Your task to perform on an android device: toggle priority inbox in the gmail app Image 0: 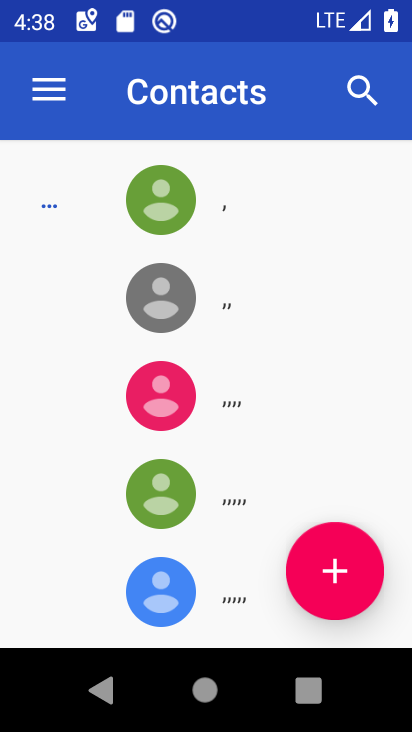
Step 0: press home button
Your task to perform on an android device: toggle priority inbox in the gmail app Image 1: 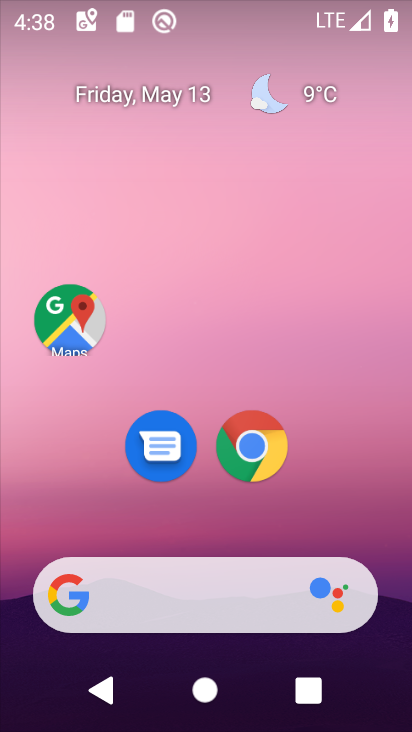
Step 1: drag from (214, 518) to (157, 10)
Your task to perform on an android device: toggle priority inbox in the gmail app Image 2: 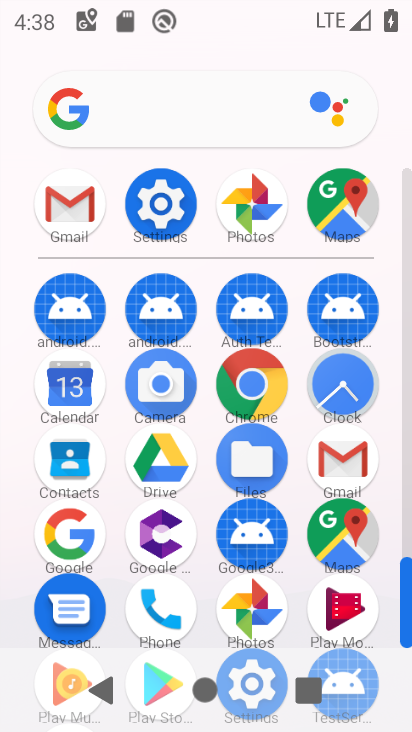
Step 2: click (340, 466)
Your task to perform on an android device: toggle priority inbox in the gmail app Image 3: 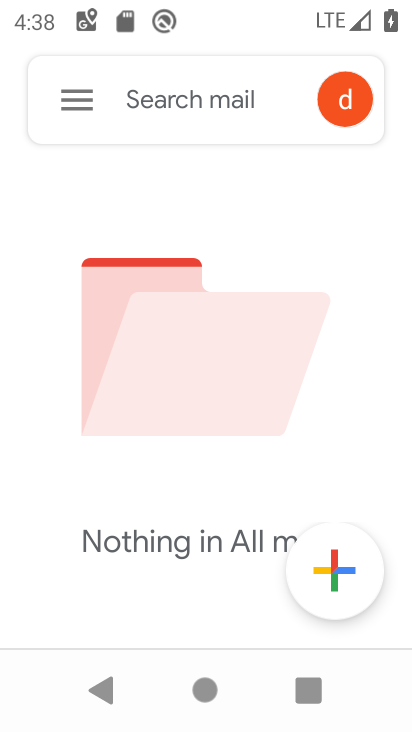
Step 3: click (69, 94)
Your task to perform on an android device: toggle priority inbox in the gmail app Image 4: 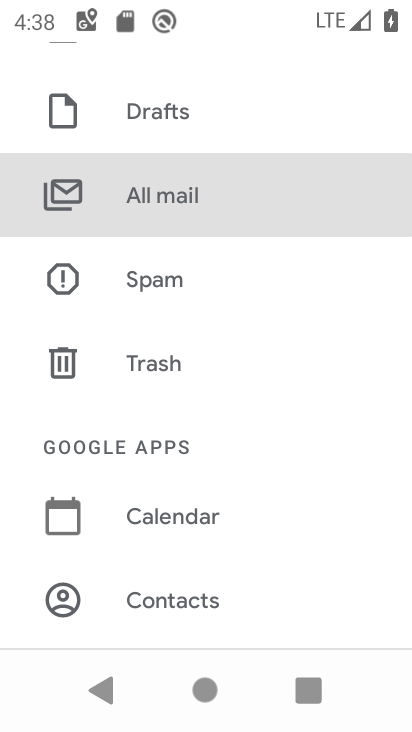
Step 4: drag from (149, 592) to (144, 223)
Your task to perform on an android device: toggle priority inbox in the gmail app Image 5: 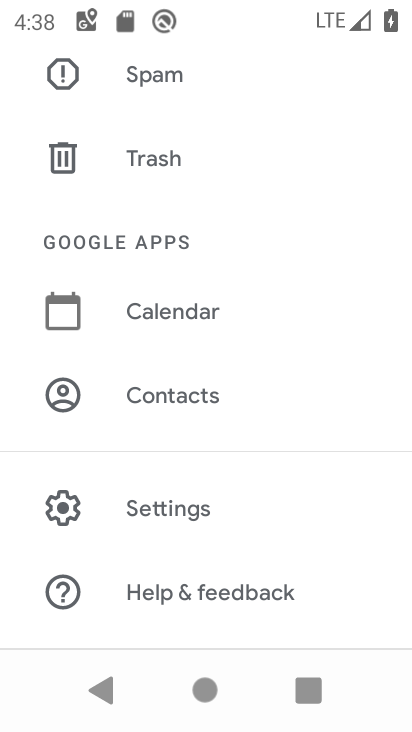
Step 5: click (147, 503)
Your task to perform on an android device: toggle priority inbox in the gmail app Image 6: 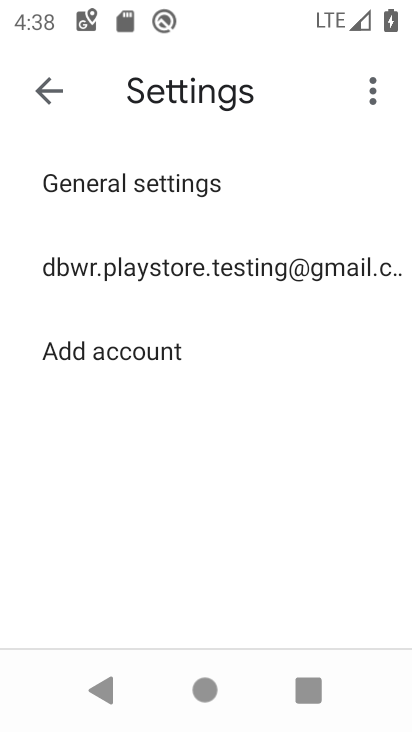
Step 6: click (118, 261)
Your task to perform on an android device: toggle priority inbox in the gmail app Image 7: 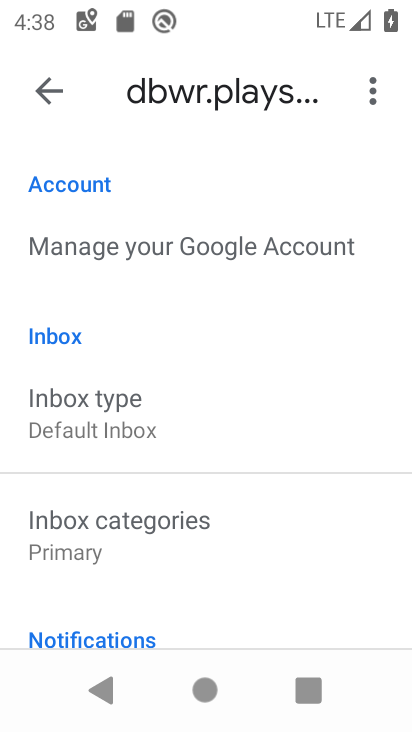
Step 7: drag from (169, 547) to (161, 477)
Your task to perform on an android device: toggle priority inbox in the gmail app Image 8: 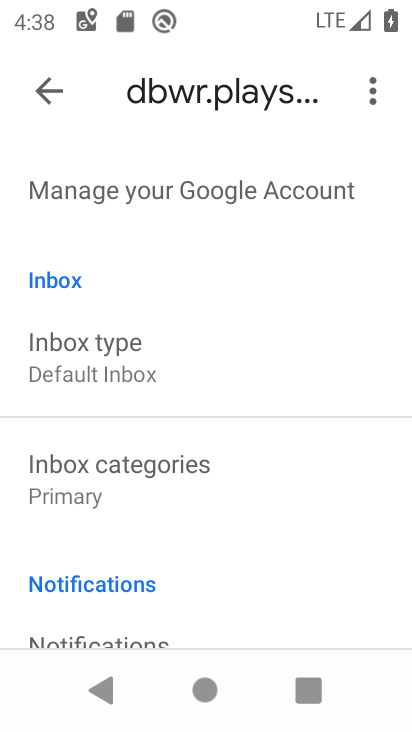
Step 8: click (133, 370)
Your task to perform on an android device: toggle priority inbox in the gmail app Image 9: 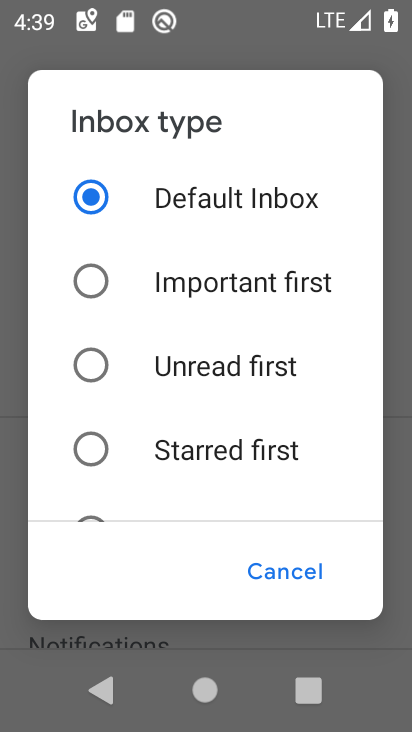
Step 9: drag from (152, 488) to (143, 276)
Your task to perform on an android device: toggle priority inbox in the gmail app Image 10: 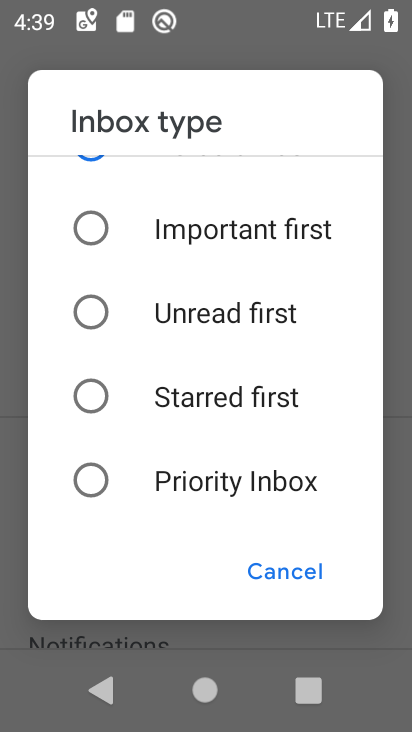
Step 10: click (166, 494)
Your task to perform on an android device: toggle priority inbox in the gmail app Image 11: 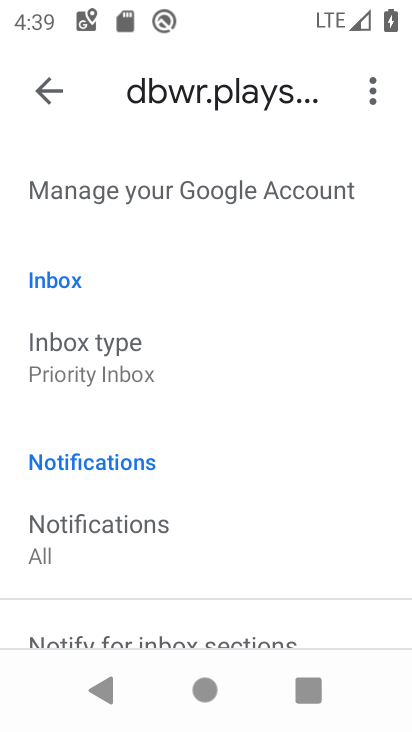
Step 11: task complete